Your task to perform on an android device: turn notification dots on Image 0: 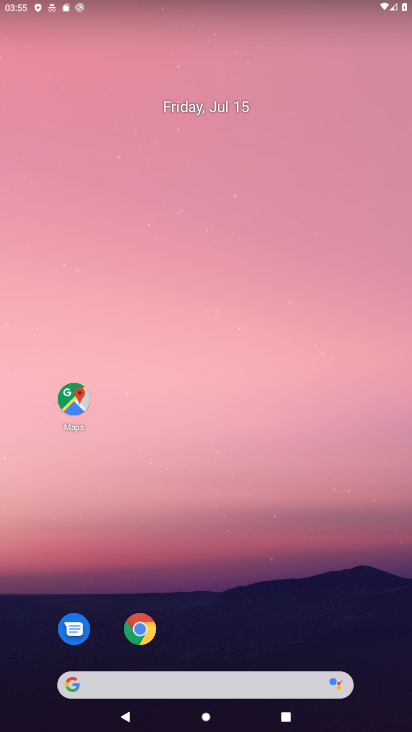
Step 0: drag from (262, 547) to (272, 46)
Your task to perform on an android device: turn notification dots on Image 1: 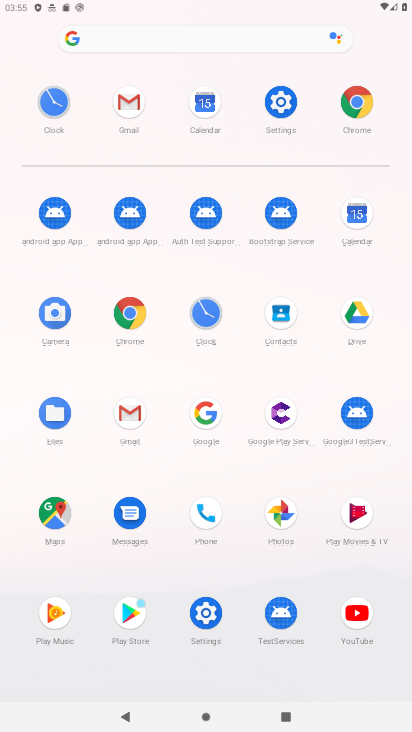
Step 1: click (192, 620)
Your task to perform on an android device: turn notification dots on Image 2: 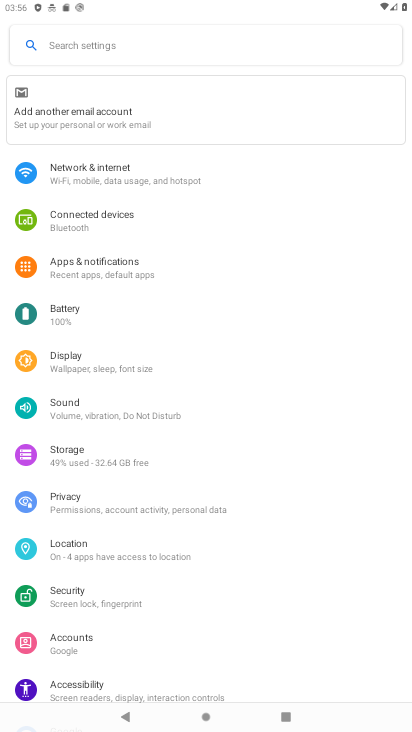
Step 2: click (127, 257)
Your task to perform on an android device: turn notification dots on Image 3: 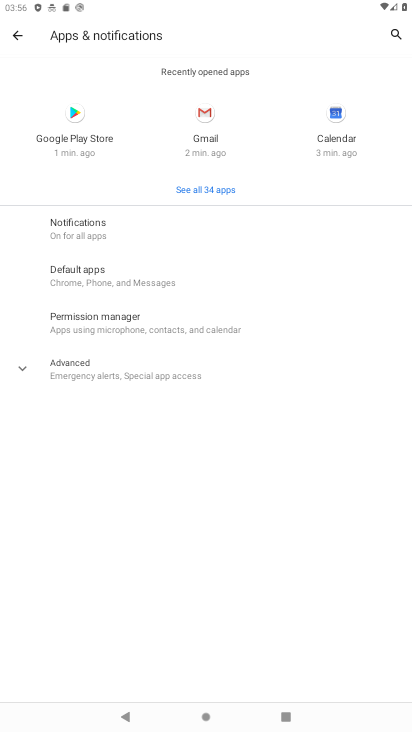
Step 3: click (118, 373)
Your task to perform on an android device: turn notification dots on Image 4: 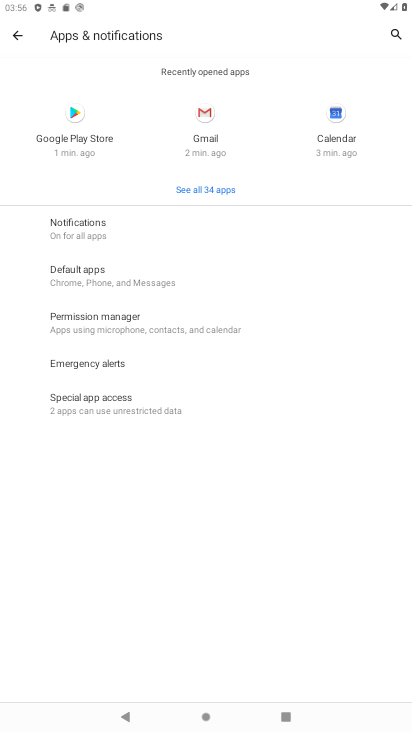
Step 4: click (95, 228)
Your task to perform on an android device: turn notification dots on Image 5: 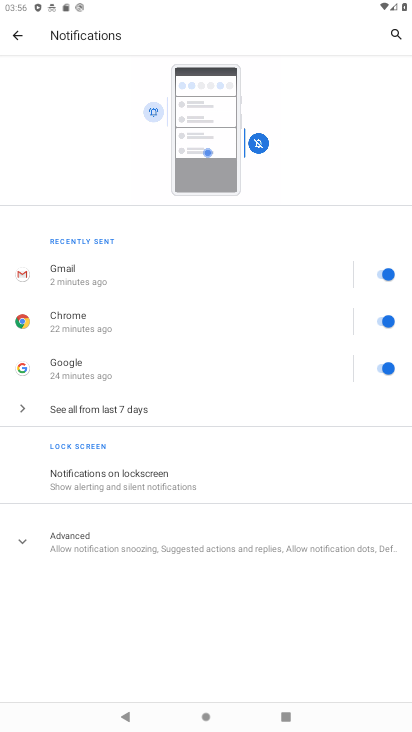
Step 5: click (78, 535)
Your task to perform on an android device: turn notification dots on Image 6: 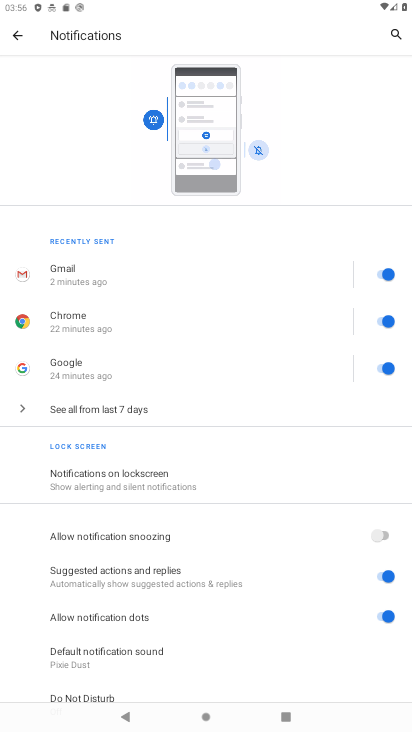
Step 6: task complete